Your task to perform on an android device: Search for the best gaming mouses on Amazon. Image 0: 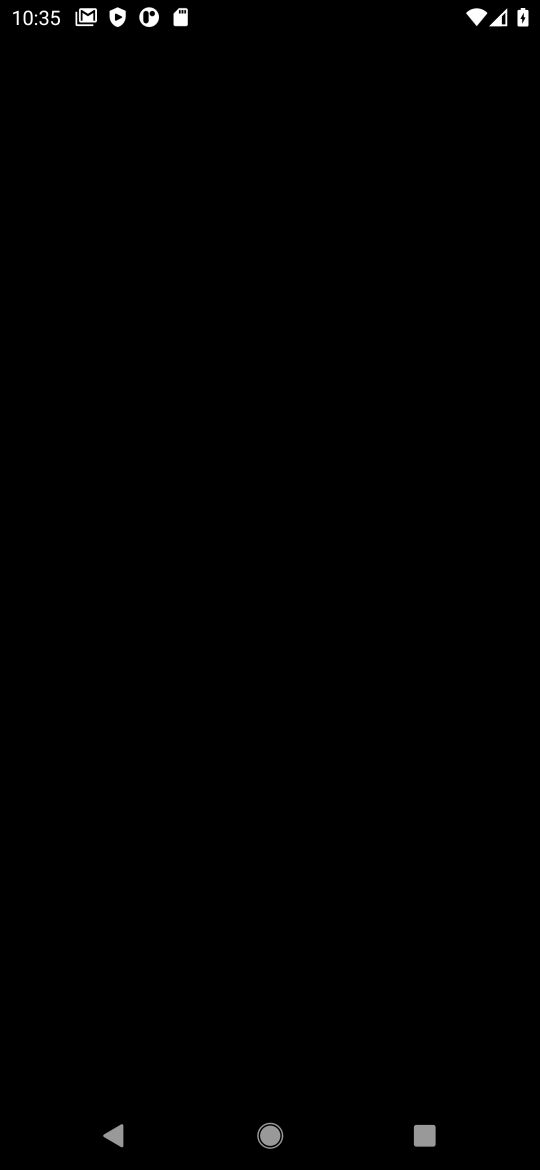
Step 0: press home button
Your task to perform on an android device: Search for the best gaming mouses on Amazon. Image 1: 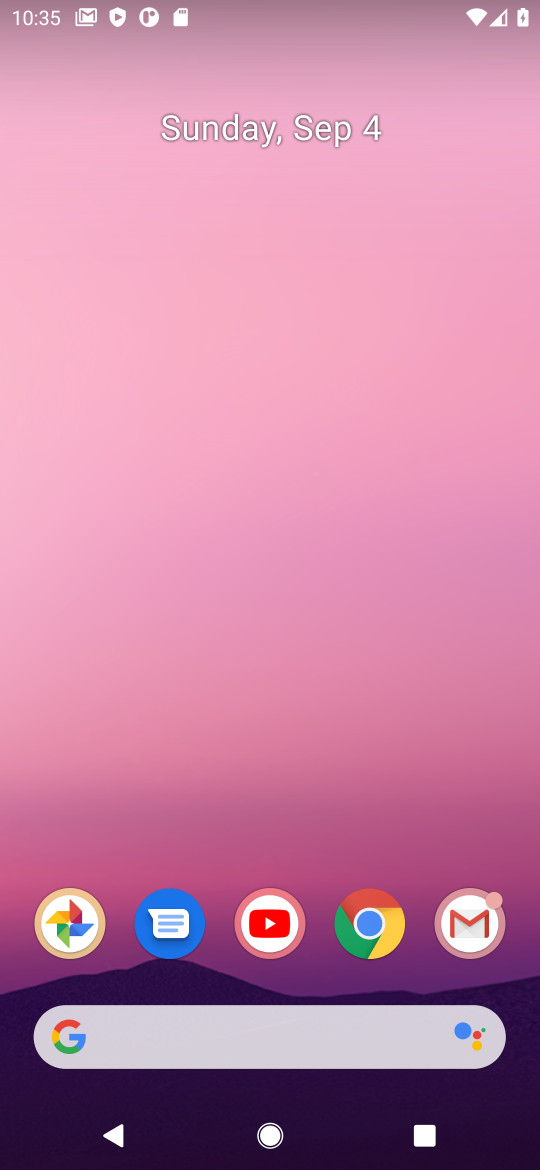
Step 1: click (371, 925)
Your task to perform on an android device: Search for the best gaming mouses on Amazon. Image 2: 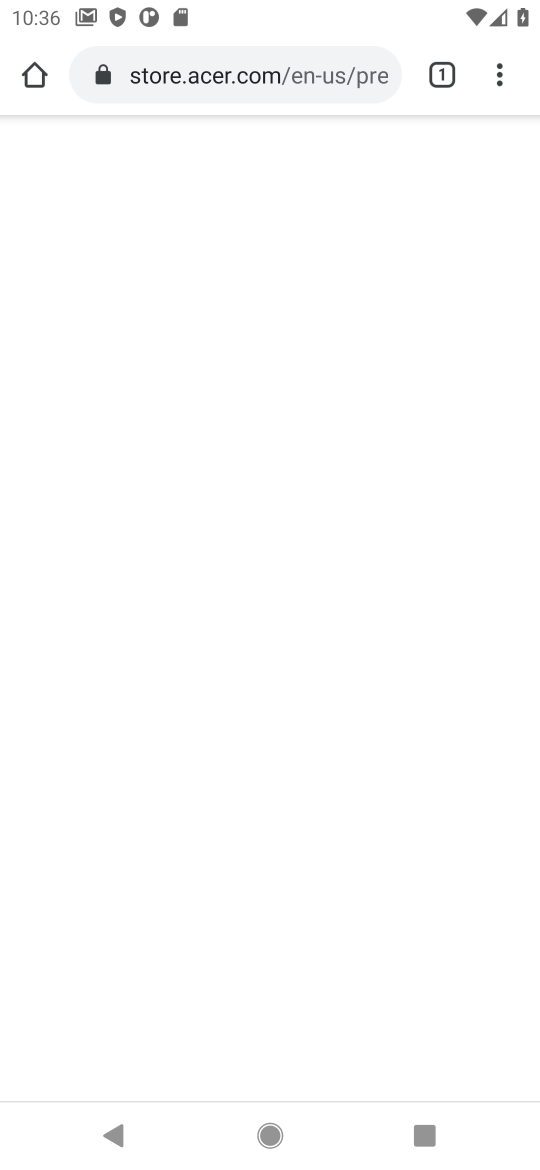
Step 2: click (209, 71)
Your task to perform on an android device: Search for the best gaming mouses on Amazon. Image 3: 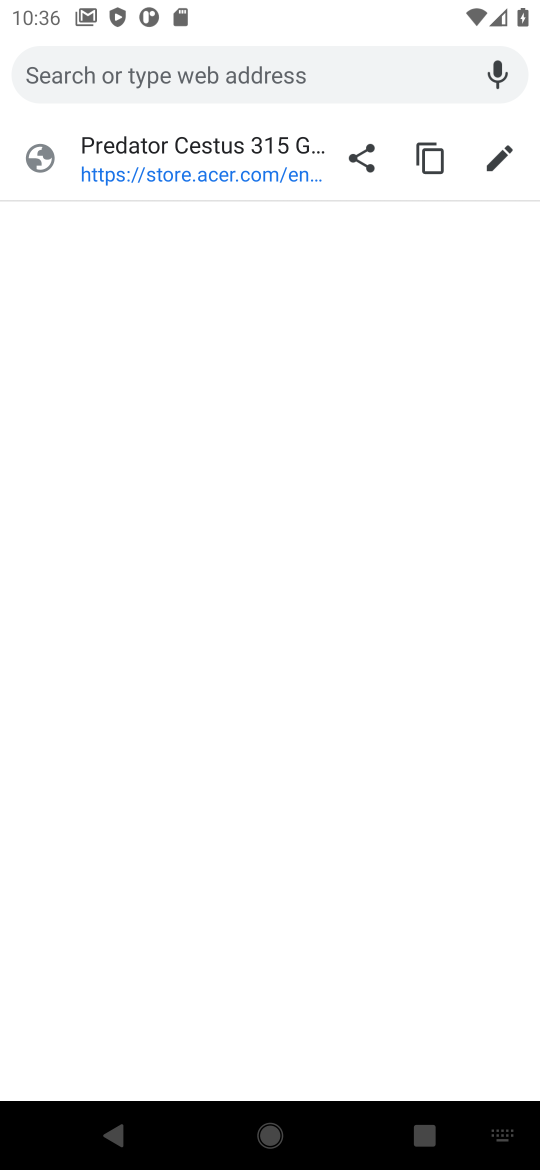
Step 3: type "the best gaming mouses on Amazon."
Your task to perform on an android device: Search for the best gaming mouses on Amazon. Image 4: 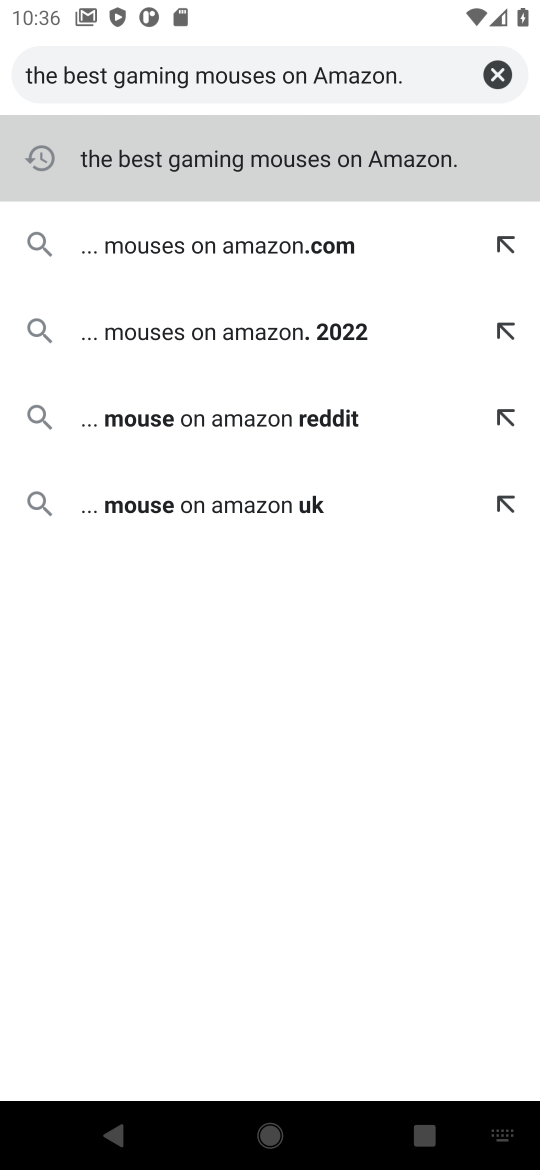
Step 4: click (278, 170)
Your task to perform on an android device: Search for the best gaming mouses on Amazon. Image 5: 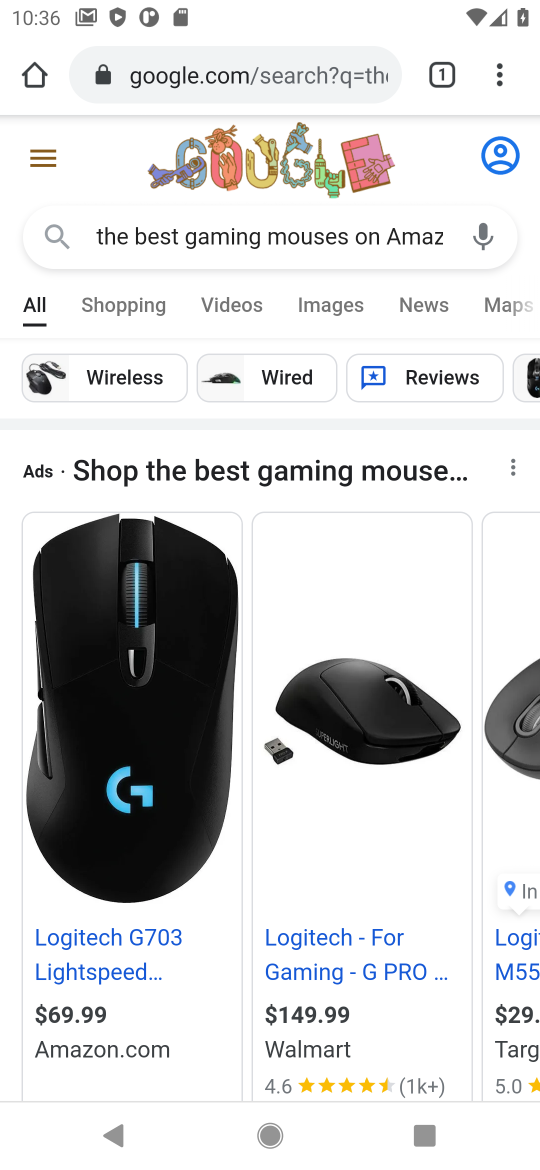
Step 5: task complete